Your task to perform on an android device: Open internet settings Image 0: 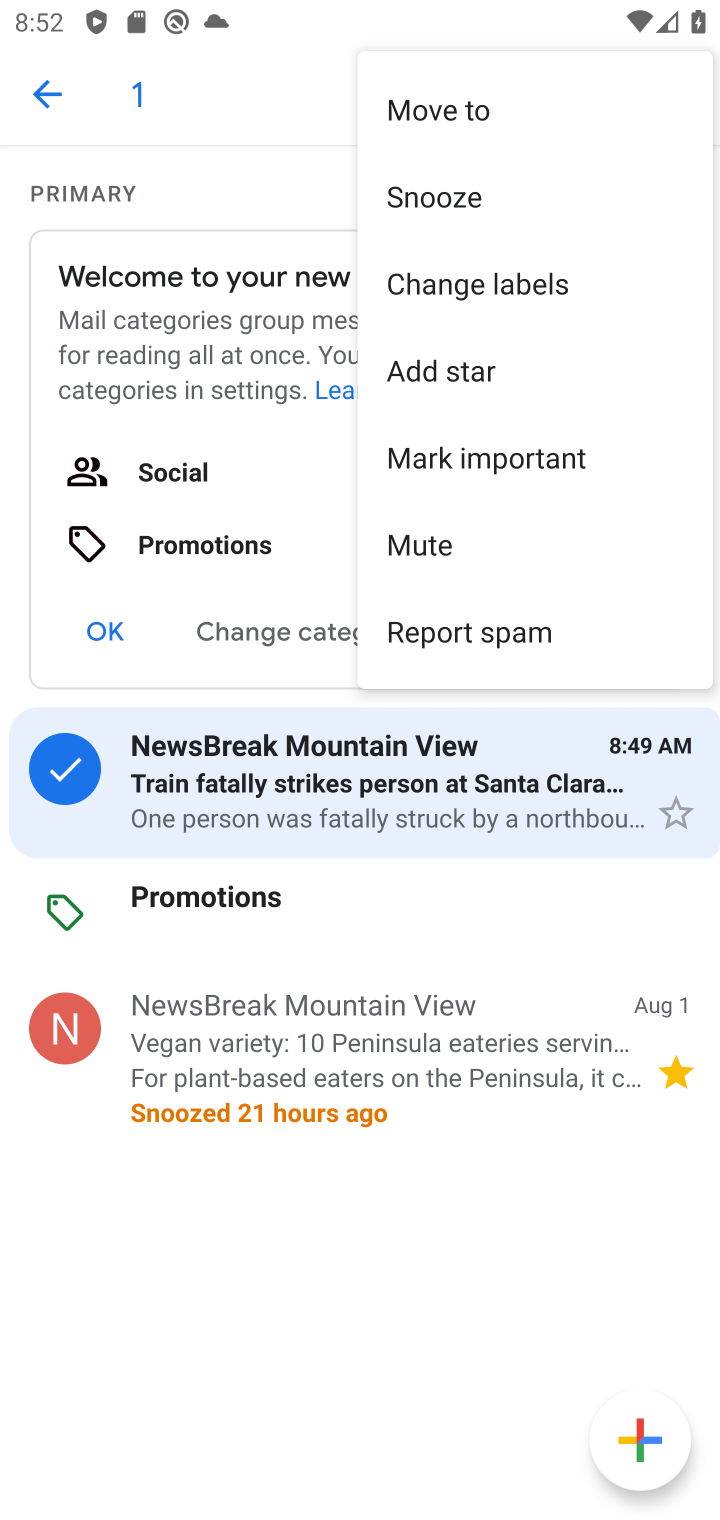
Step 0: press home button
Your task to perform on an android device: Open internet settings Image 1: 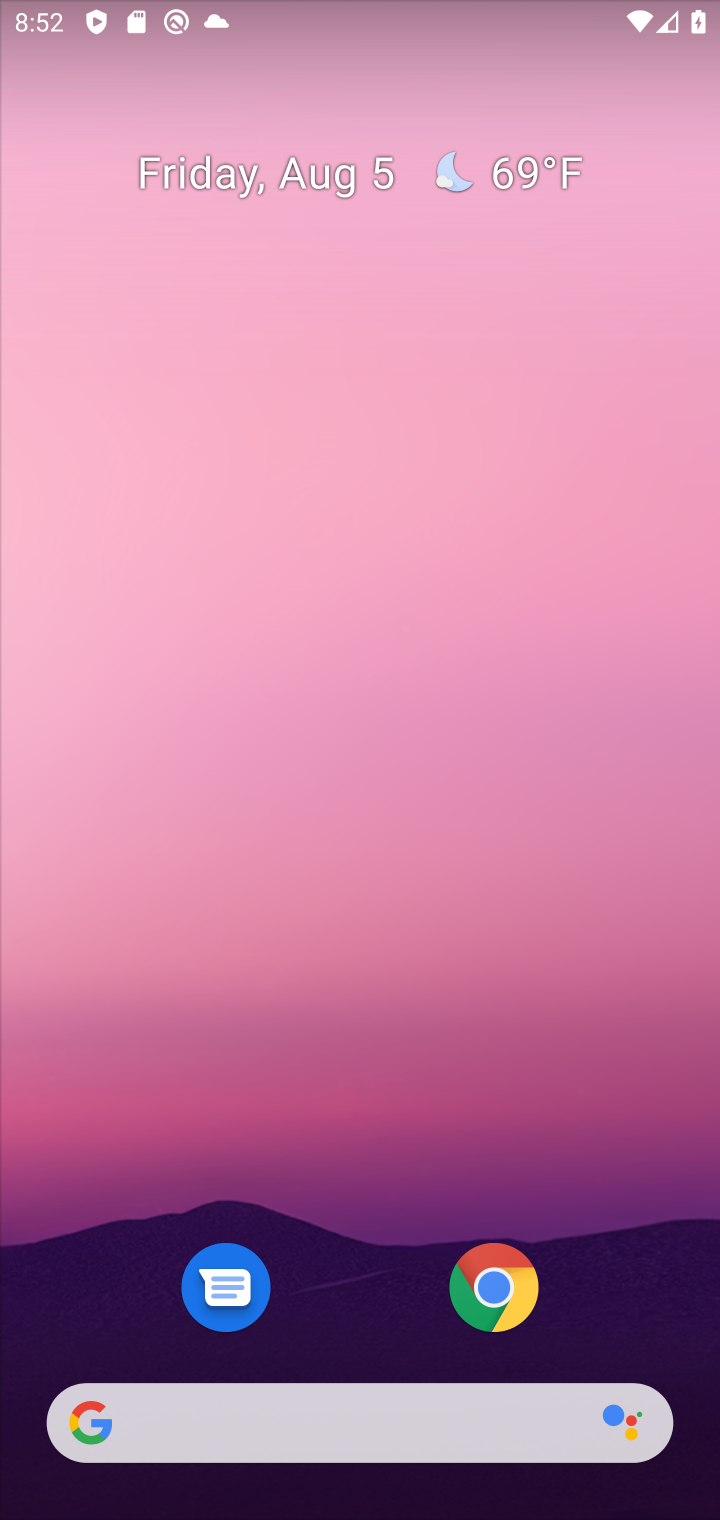
Step 1: drag from (355, 1193) to (353, 311)
Your task to perform on an android device: Open internet settings Image 2: 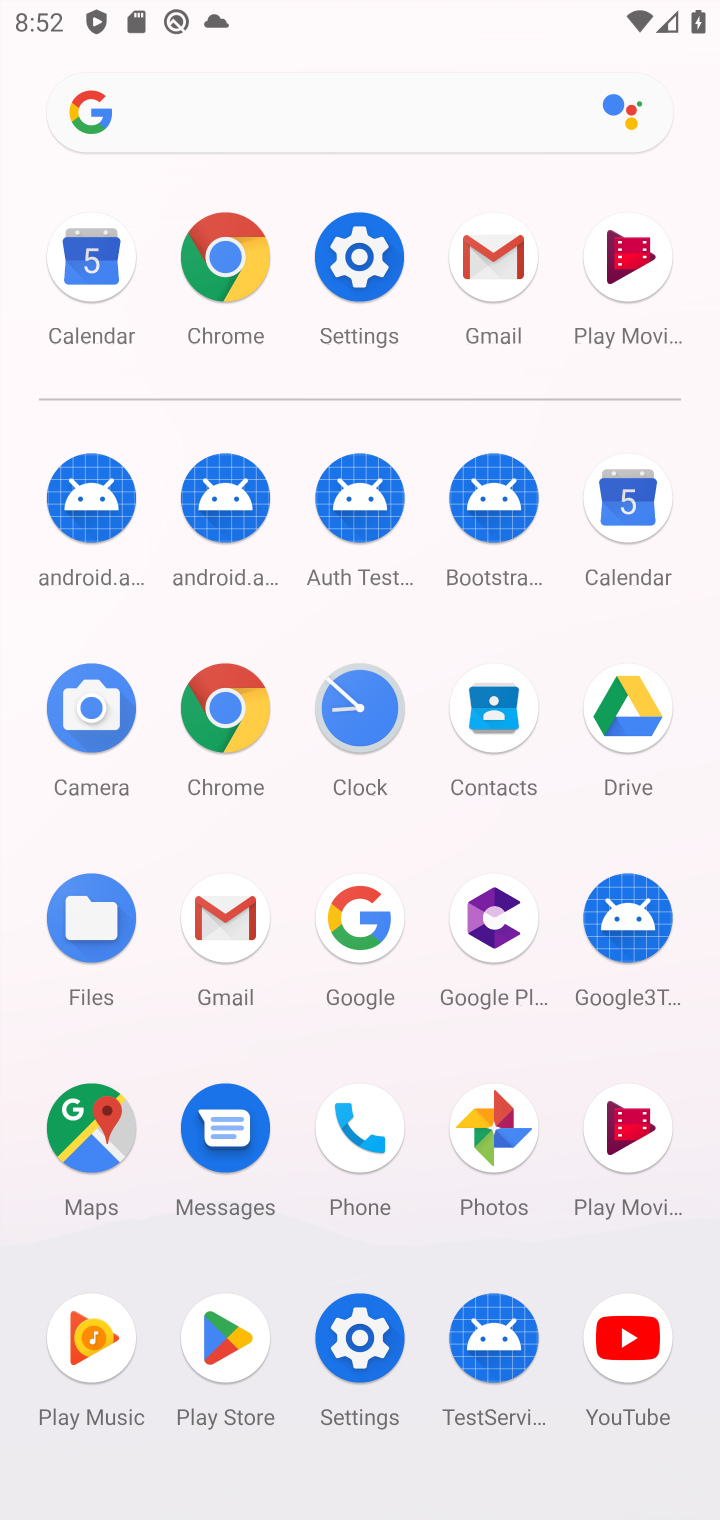
Step 2: click (353, 252)
Your task to perform on an android device: Open internet settings Image 3: 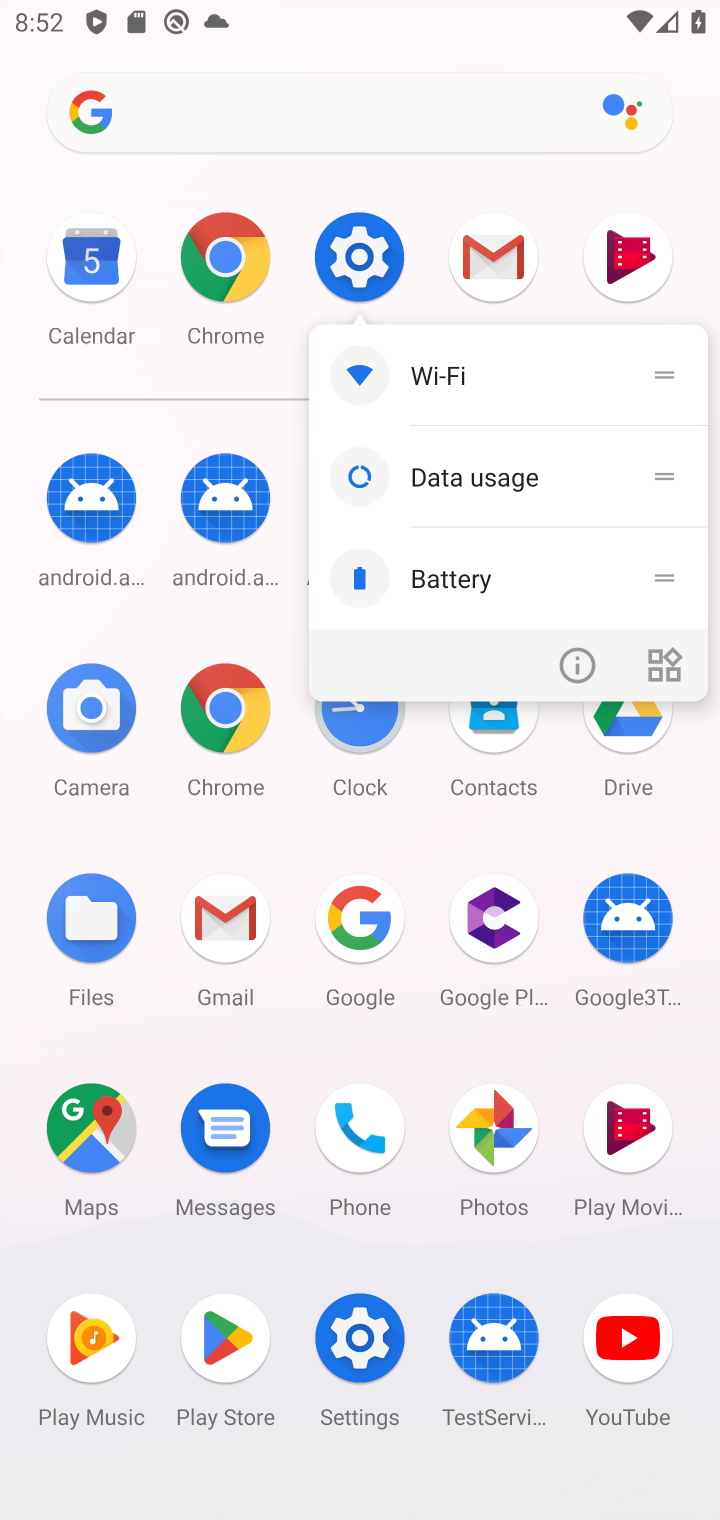
Step 3: click (353, 252)
Your task to perform on an android device: Open internet settings Image 4: 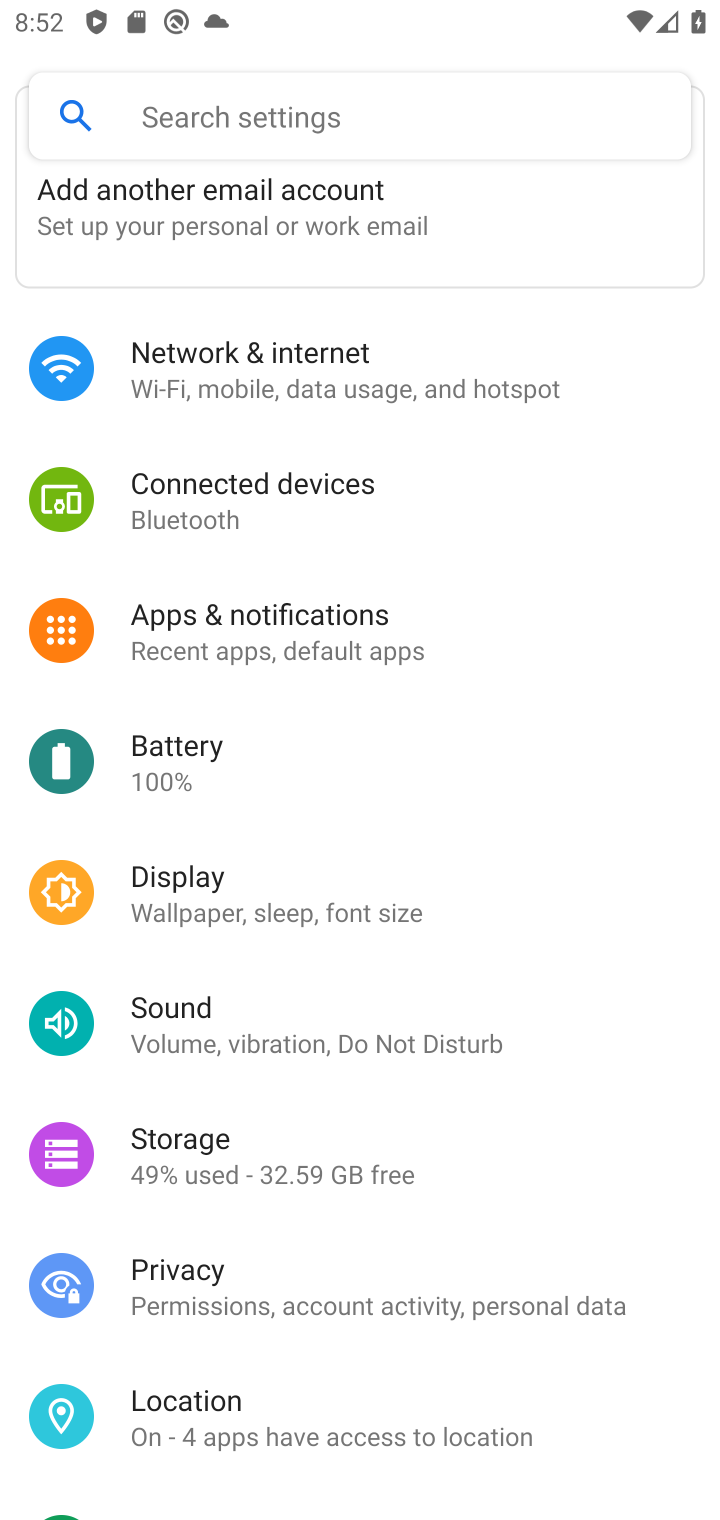
Step 4: drag from (285, 251) to (325, 753)
Your task to perform on an android device: Open internet settings Image 5: 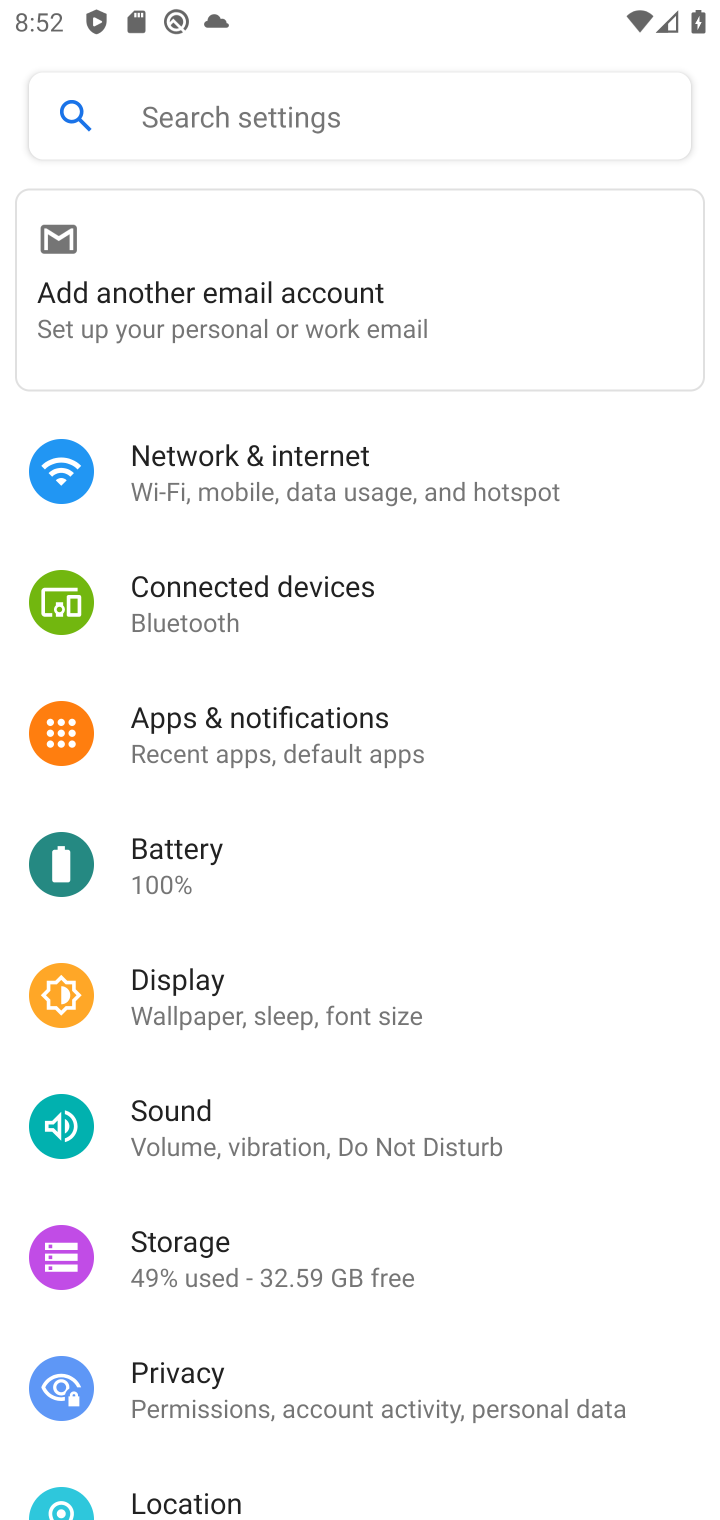
Step 5: click (256, 477)
Your task to perform on an android device: Open internet settings Image 6: 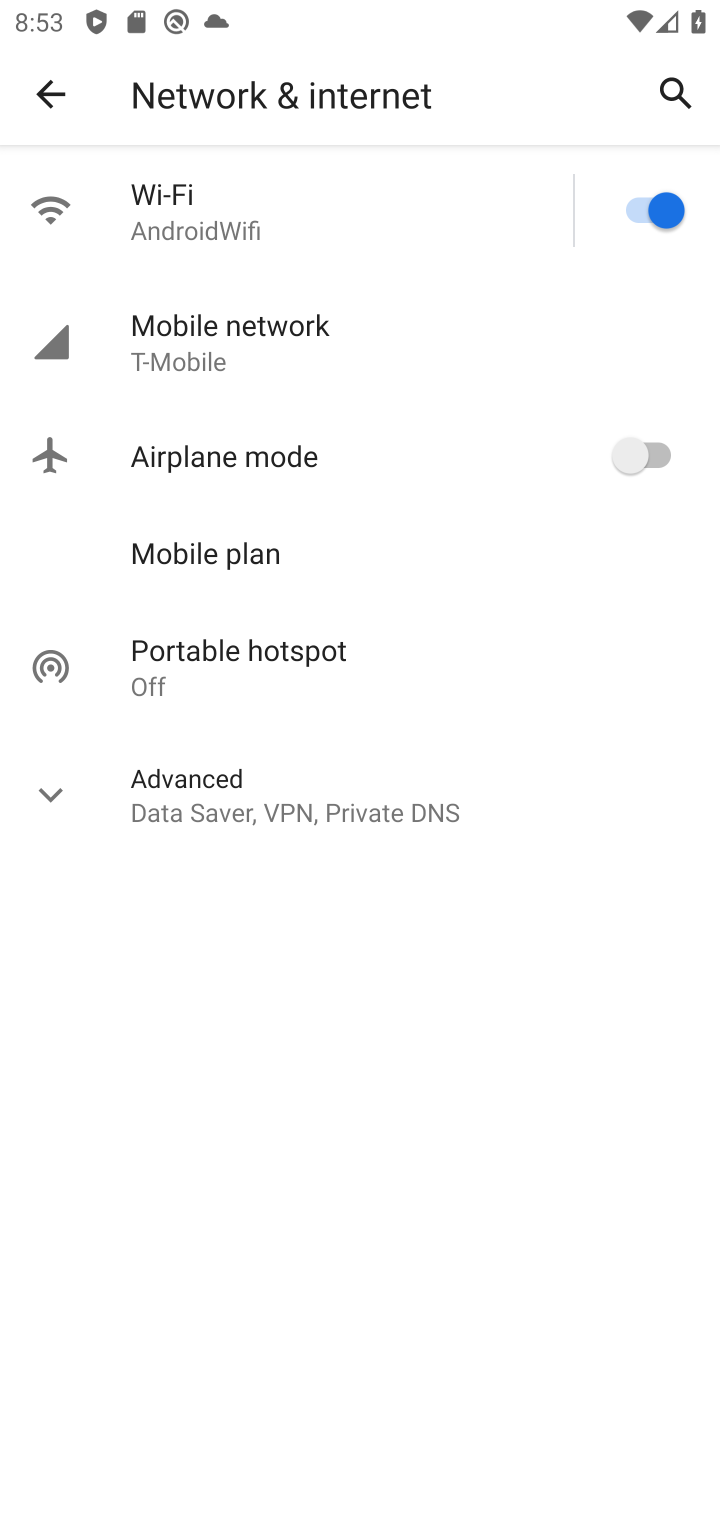
Step 6: task complete